Your task to perform on an android device: Open Google Chrome and open the bookmarks view Image 0: 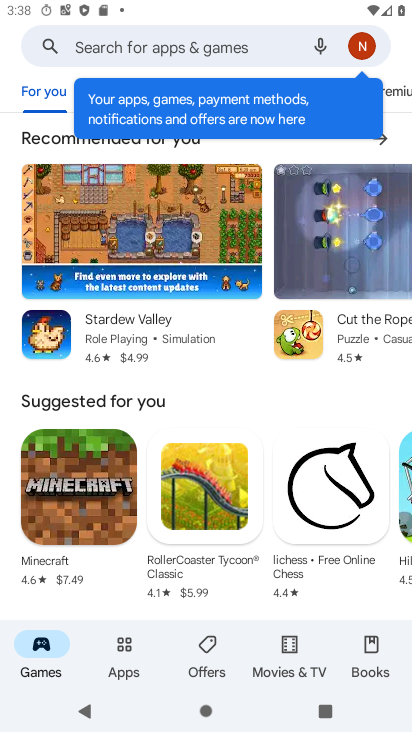
Step 0: press home button
Your task to perform on an android device: Open Google Chrome and open the bookmarks view Image 1: 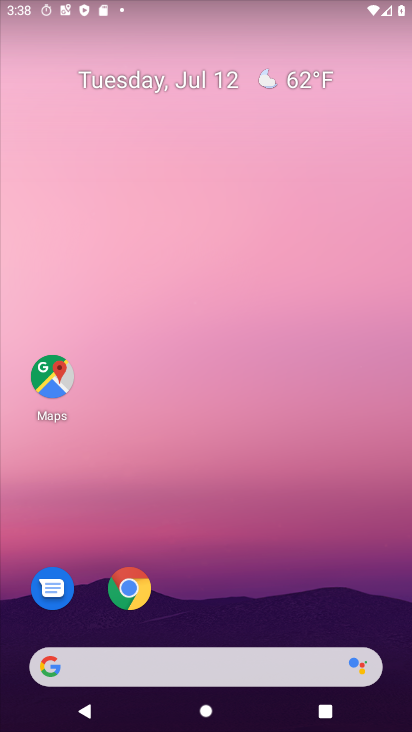
Step 1: drag from (217, 595) to (205, 12)
Your task to perform on an android device: Open Google Chrome and open the bookmarks view Image 2: 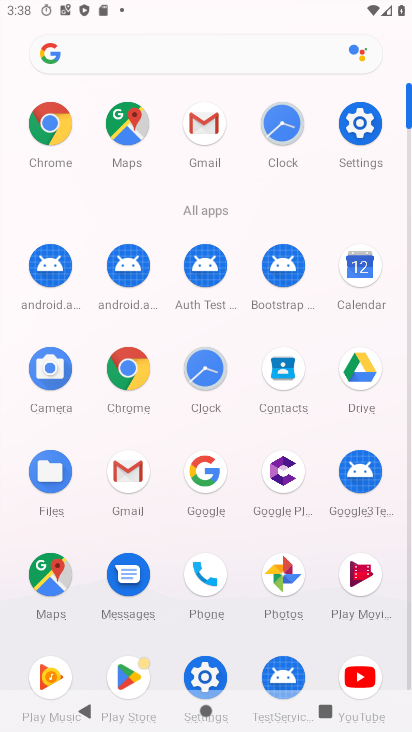
Step 2: click (130, 382)
Your task to perform on an android device: Open Google Chrome and open the bookmarks view Image 3: 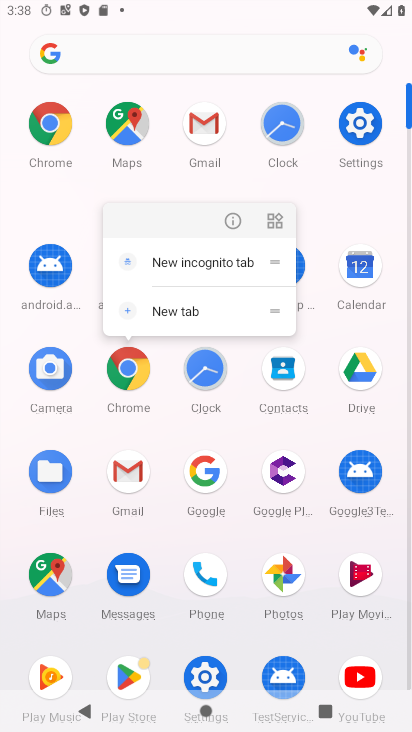
Step 3: click (129, 382)
Your task to perform on an android device: Open Google Chrome and open the bookmarks view Image 4: 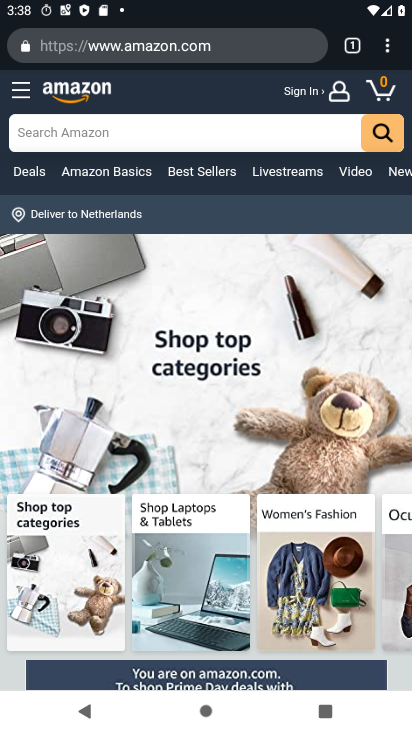
Step 4: click (385, 45)
Your task to perform on an android device: Open Google Chrome and open the bookmarks view Image 5: 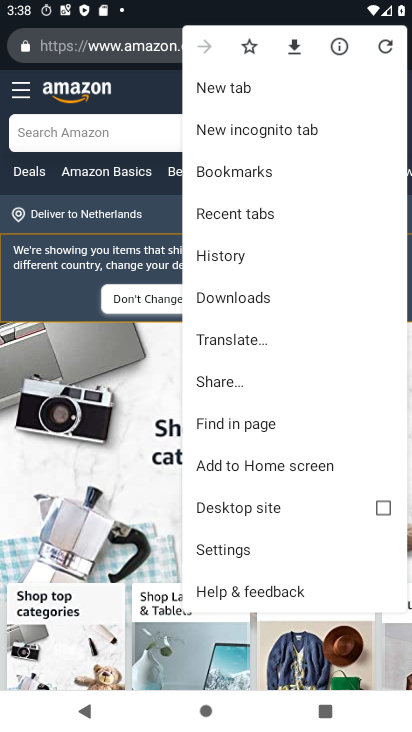
Step 5: click (245, 171)
Your task to perform on an android device: Open Google Chrome and open the bookmarks view Image 6: 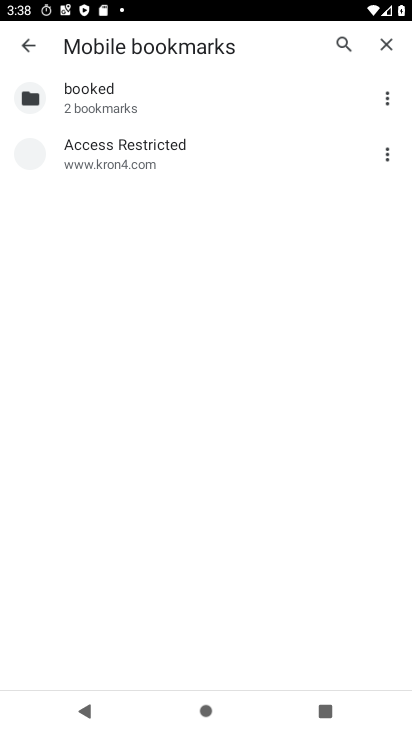
Step 6: click (111, 113)
Your task to perform on an android device: Open Google Chrome and open the bookmarks view Image 7: 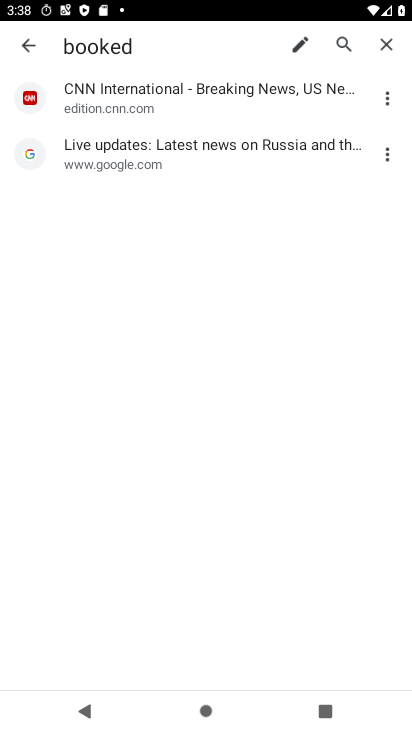
Step 7: task complete